Your task to perform on an android device: Open location settings Image 0: 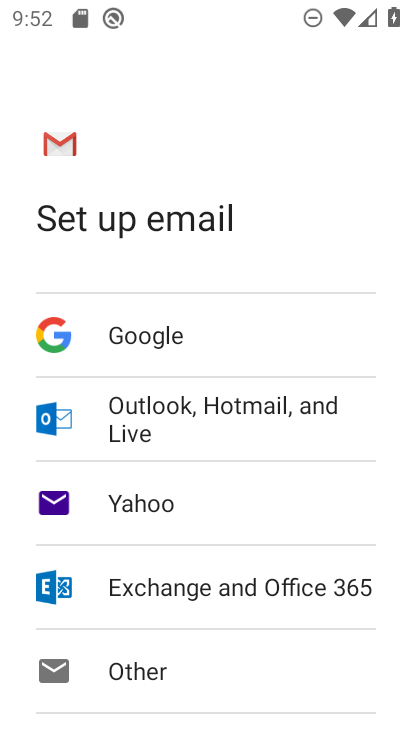
Step 0: press home button
Your task to perform on an android device: Open location settings Image 1: 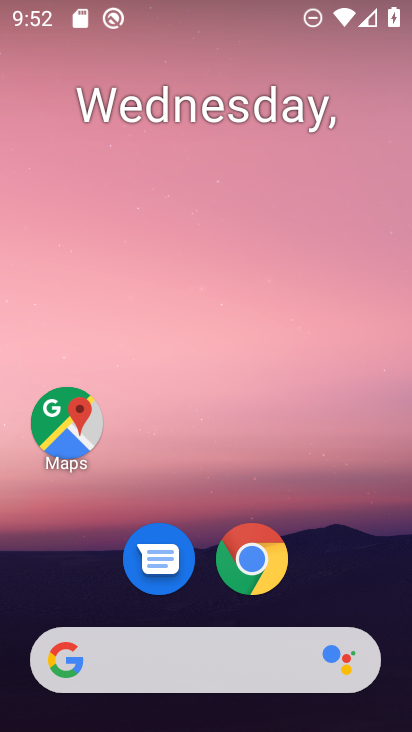
Step 1: drag from (351, 573) to (378, 149)
Your task to perform on an android device: Open location settings Image 2: 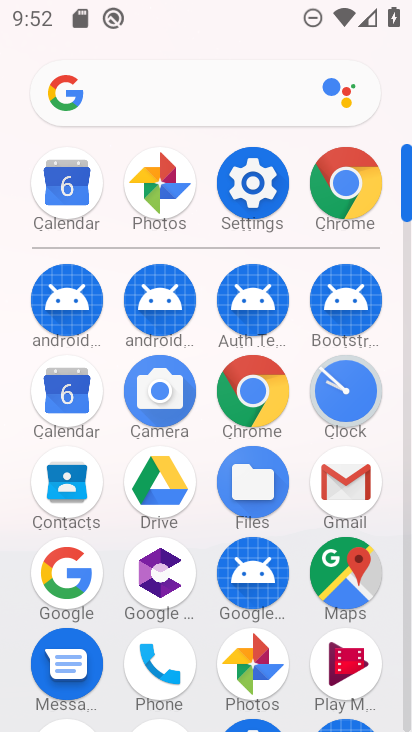
Step 2: click (257, 191)
Your task to perform on an android device: Open location settings Image 3: 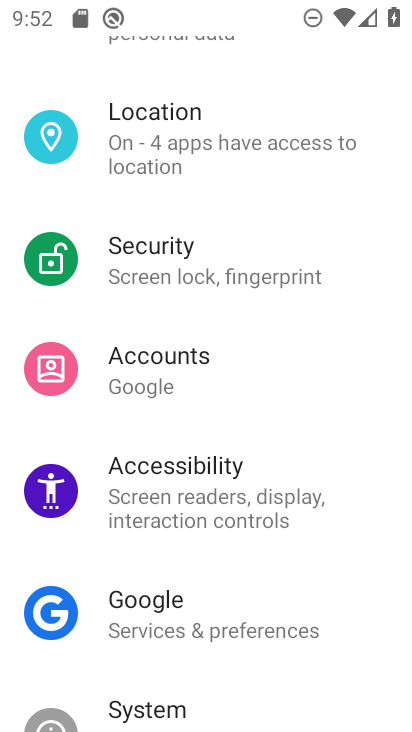
Step 3: drag from (324, 230) to (349, 318)
Your task to perform on an android device: Open location settings Image 4: 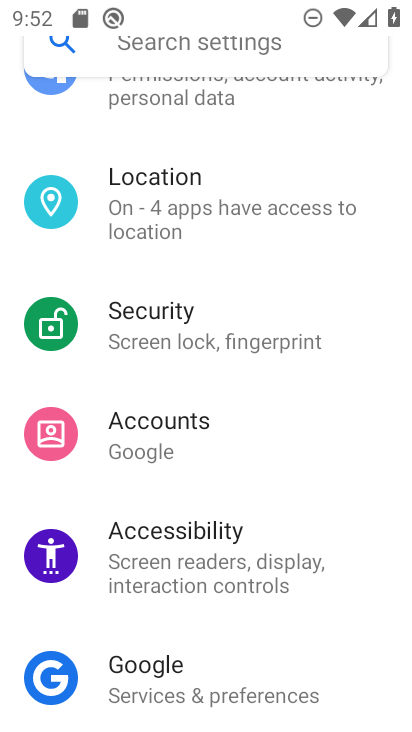
Step 4: drag from (370, 154) to (368, 287)
Your task to perform on an android device: Open location settings Image 5: 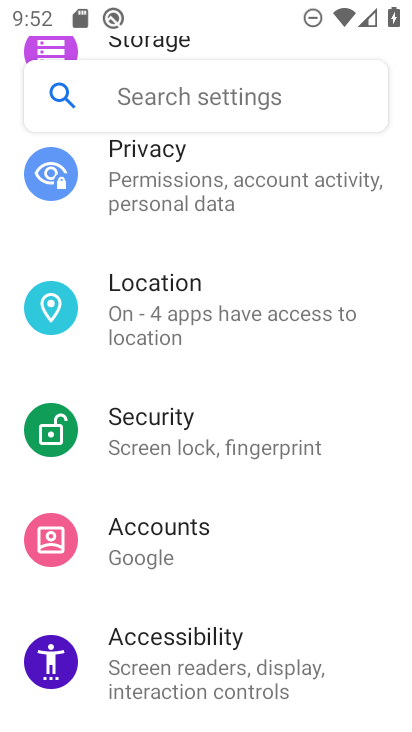
Step 5: click (211, 313)
Your task to perform on an android device: Open location settings Image 6: 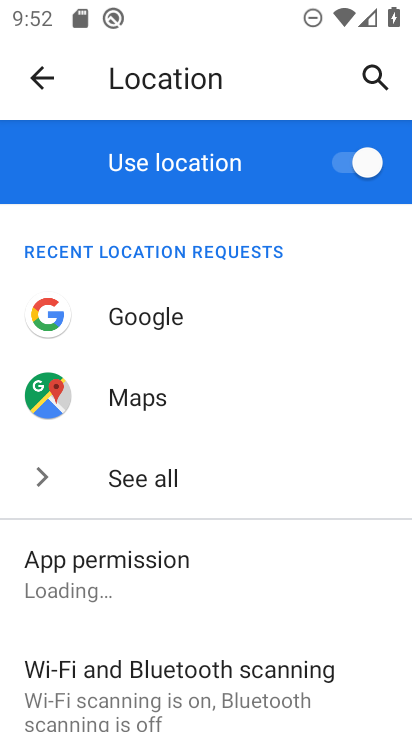
Step 6: drag from (324, 526) to (335, 313)
Your task to perform on an android device: Open location settings Image 7: 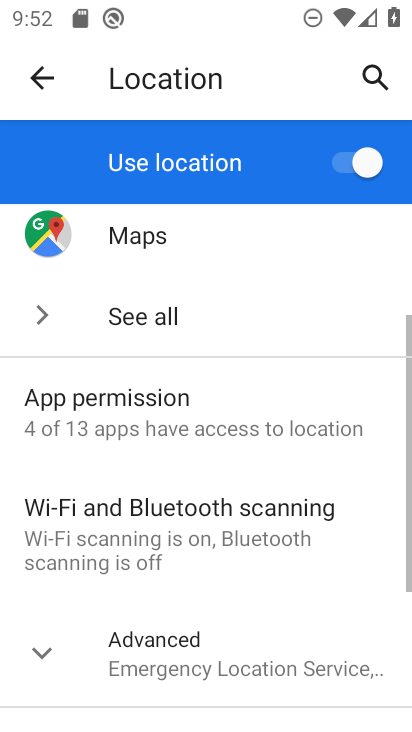
Step 7: click (254, 663)
Your task to perform on an android device: Open location settings Image 8: 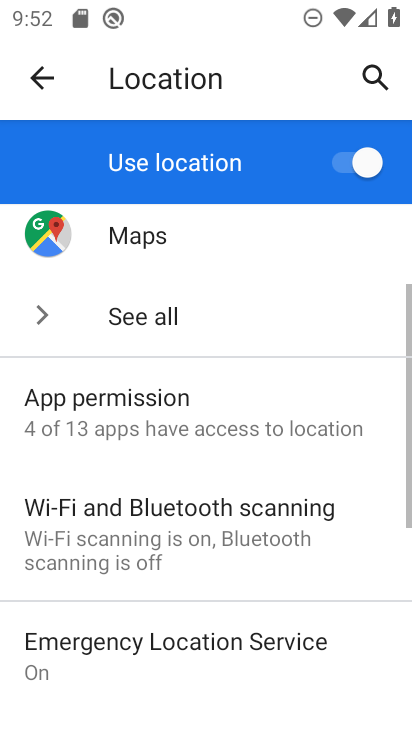
Step 8: task complete